Your task to perform on an android device: turn on airplane mode Image 0: 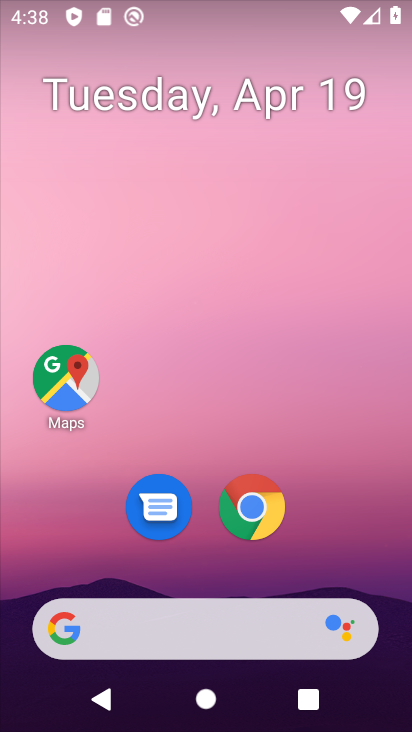
Step 0: drag from (279, 570) to (313, 400)
Your task to perform on an android device: turn on airplane mode Image 1: 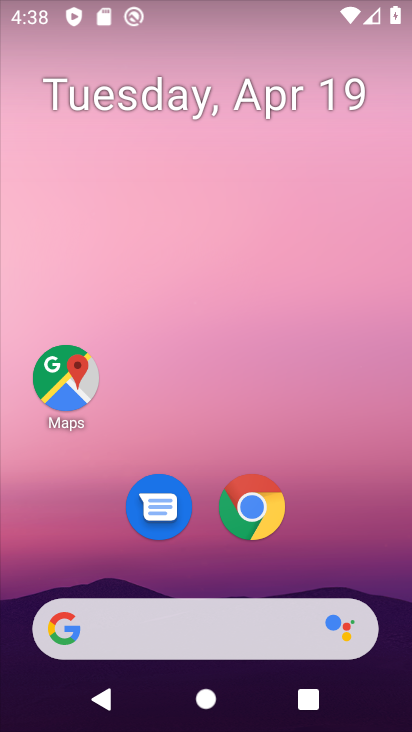
Step 1: drag from (296, 6) to (249, 432)
Your task to perform on an android device: turn on airplane mode Image 2: 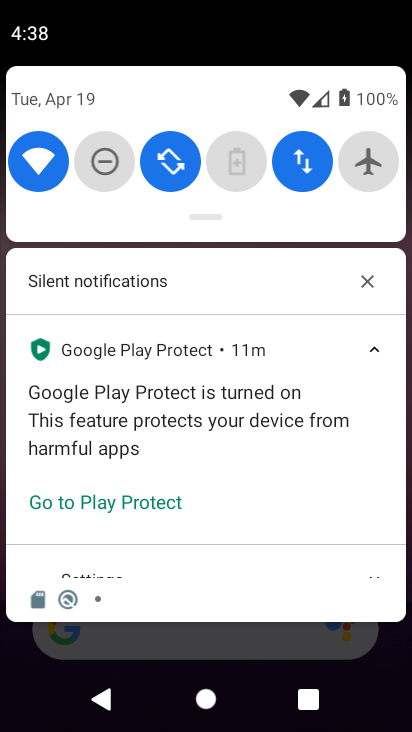
Step 2: click (367, 161)
Your task to perform on an android device: turn on airplane mode Image 3: 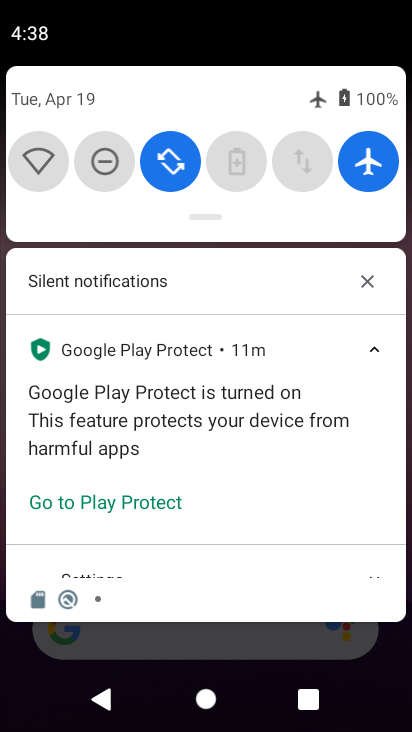
Step 3: task complete